Your task to perform on an android device: turn on showing notifications on the lock screen Image 0: 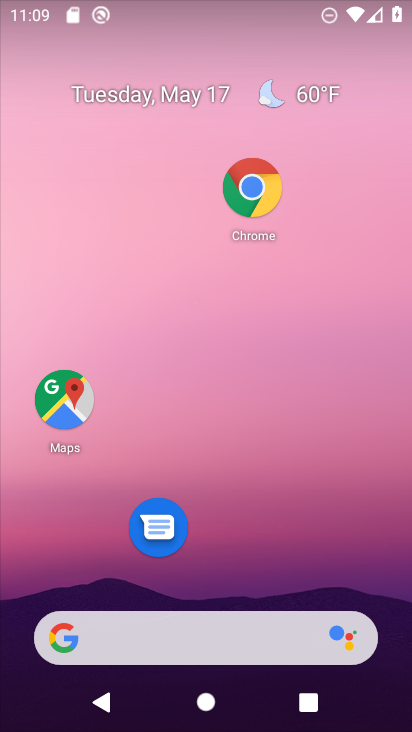
Step 0: drag from (231, 569) to (382, 258)
Your task to perform on an android device: turn on showing notifications on the lock screen Image 1: 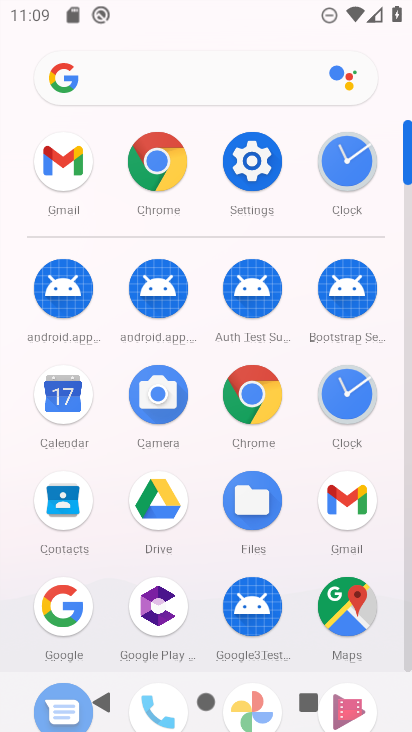
Step 1: click (286, 213)
Your task to perform on an android device: turn on showing notifications on the lock screen Image 2: 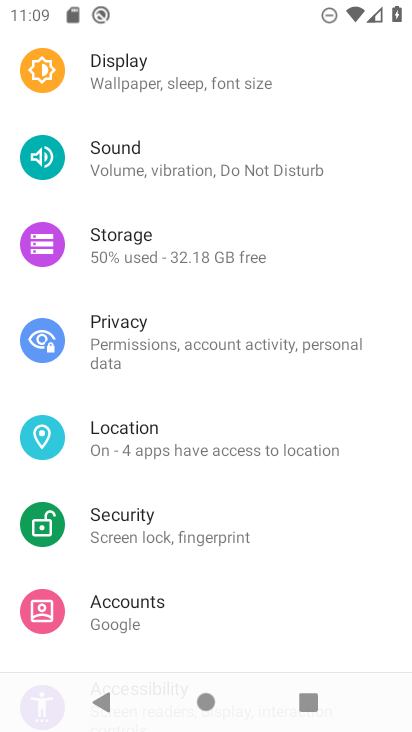
Step 2: task complete